Your task to perform on an android device: Open Google Chrome and click the shortcut for Amazon.com Image 0: 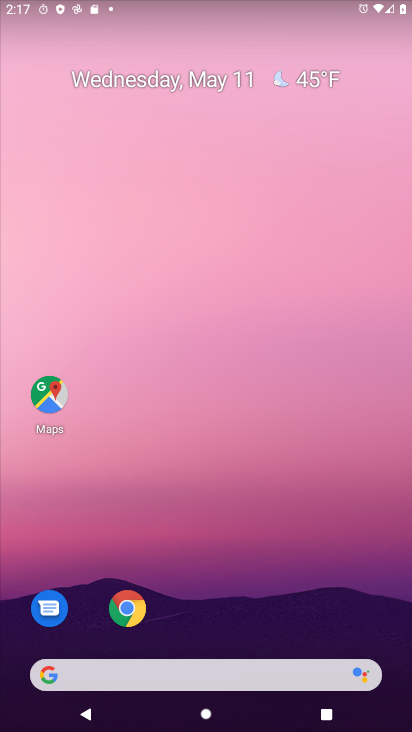
Step 0: click (126, 608)
Your task to perform on an android device: Open Google Chrome and click the shortcut for Amazon.com Image 1: 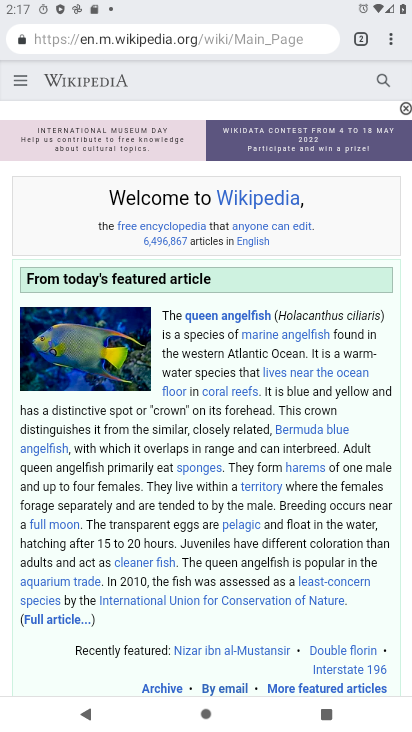
Step 1: press back button
Your task to perform on an android device: Open Google Chrome and click the shortcut for Amazon.com Image 2: 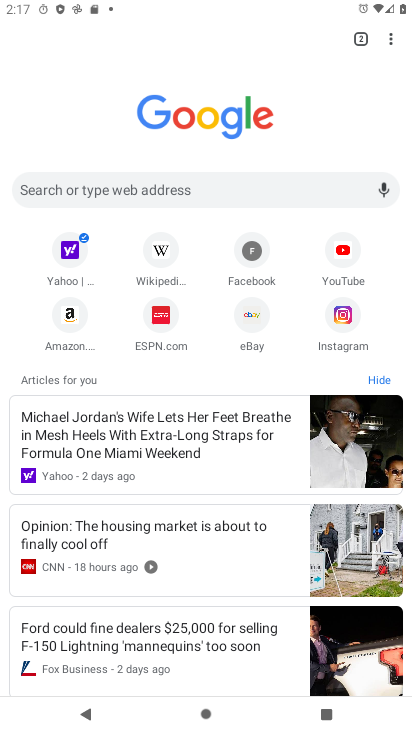
Step 2: click (66, 310)
Your task to perform on an android device: Open Google Chrome and click the shortcut for Amazon.com Image 3: 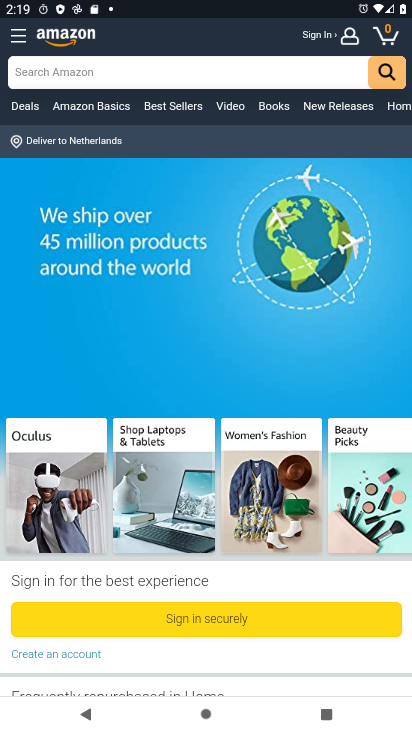
Step 3: task complete